Your task to perform on an android device: Clear the cart on newegg.com. Search for alienware area 51 on newegg.com, select the first entry, and add it to the cart. Image 0: 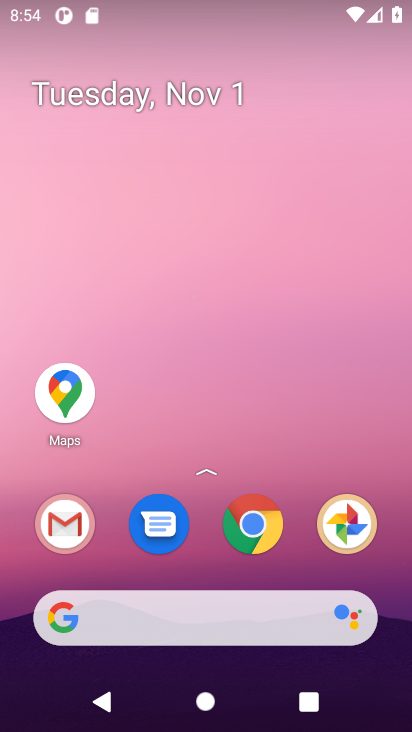
Step 0: press home button
Your task to perform on an android device: Clear the cart on newegg.com. Search for alienware area 51 on newegg.com, select the first entry, and add it to the cart. Image 1: 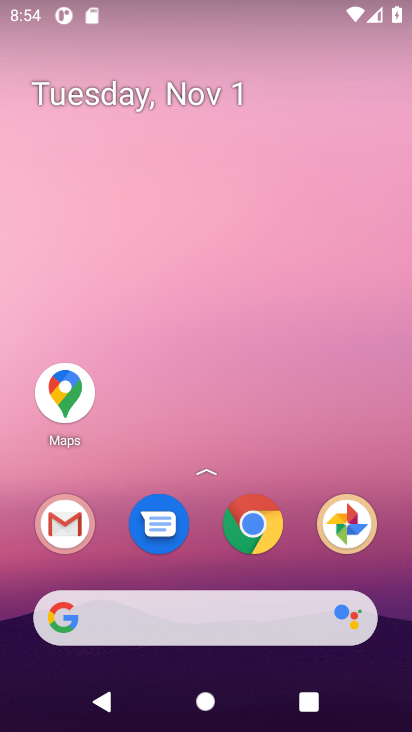
Step 1: click (91, 611)
Your task to perform on an android device: Clear the cart on newegg.com. Search for alienware area 51 on newegg.com, select the first entry, and add it to the cart. Image 2: 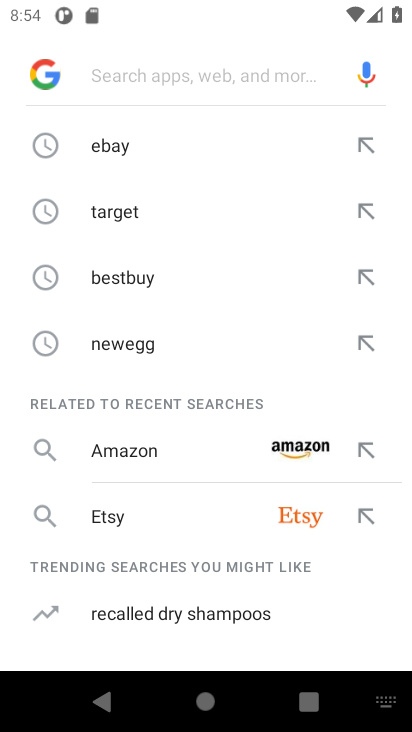
Step 2: type "newegg.com"
Your task to perform on an android device: Clear the cart on newegg.com. Search for alienware area 51 on newegg.com, select the first entry, and add it to the cart. Image 3: 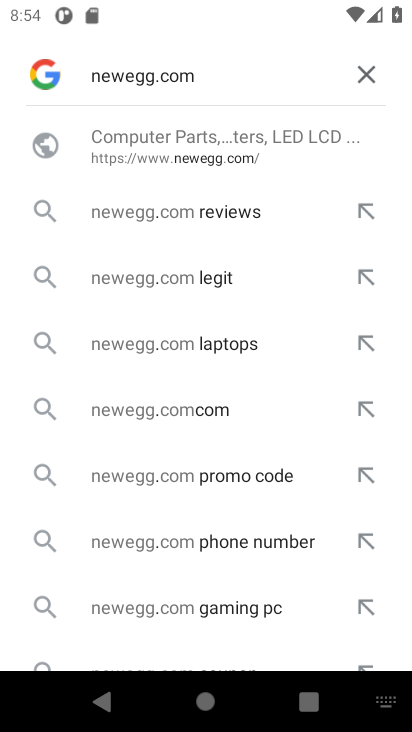
Step 3: press enter
Your task to perform on an android device: Clear the cart on newegg.com. Search for alienware area 51 on newegg.com, select the first entry, and add it to the cart. Image 4: 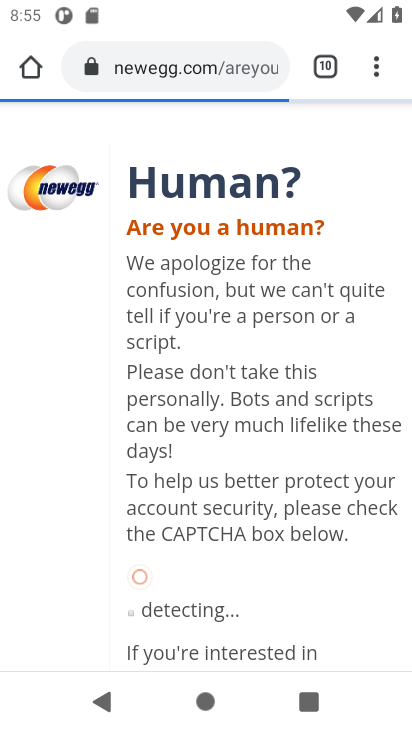
Step 4: drag from (338, 519) to (333, 202)
Your task to perform on an android device: Clear the cart on newegg.com. Search for alienware area 51 on newegg.com, select the first entry, and add it to the cart. Image 5: 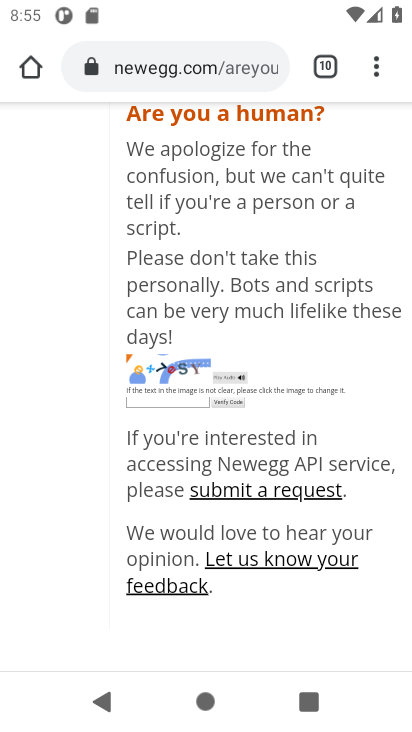
Step 5: click (163, 394)
Your task to perform on an android device: Clear the cart on newegg.com. Search for alienware area 51 on newegg.com, select the first entry, and add it to the cart. Image 6: 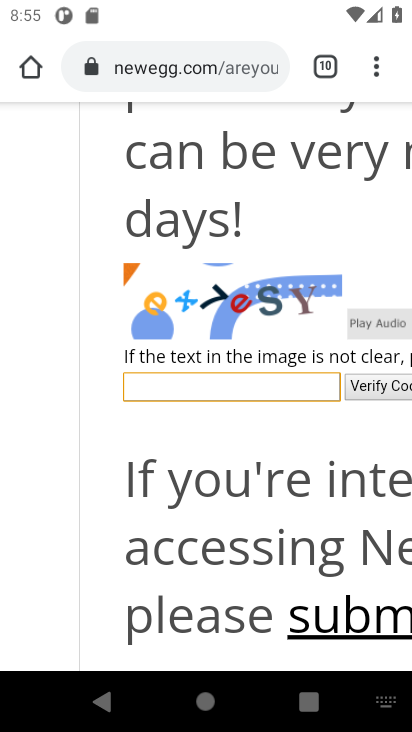
Step 6: type "ex7eSY"
Your task to perform on an android device: Clear the cart on newegg.com. Search for alienware area 51 on newegg.com, select the first entry, and add it to the cart. Image 7: 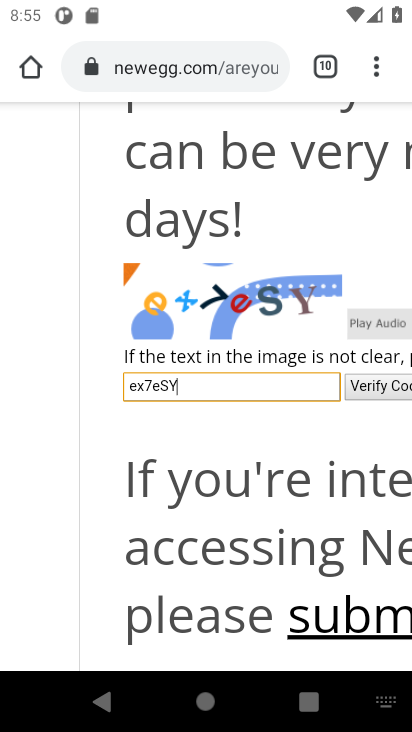
Step 7: press enter
Your task to perform on an android device: Clear the cart on newegg.com. Search for alienware area 51 on newegg.com, select the first entry, and add it to the cart. Image 8: 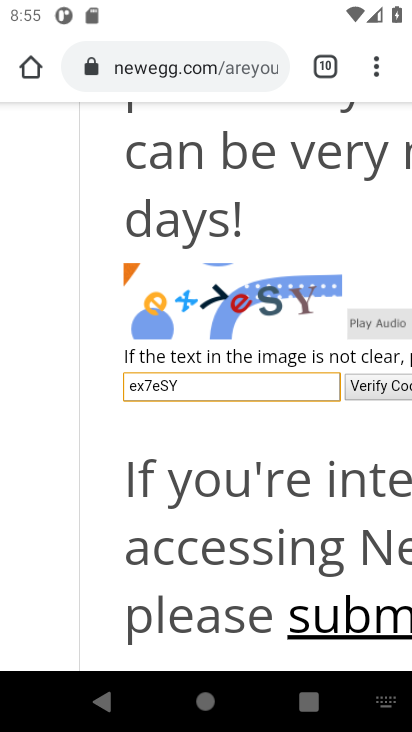
Step 8: click (376, 389)
Your task to perform on an android device: Clear the cart on newegg.com. Search for alienware area 51 on newegg.com, select the first entry, and add it to the cart. Image 9: 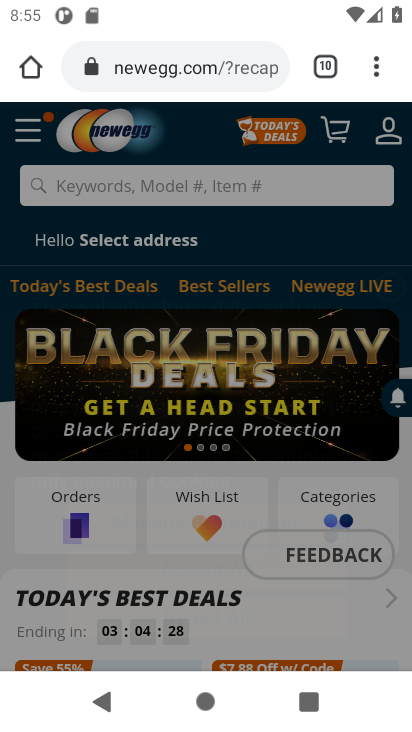
Step 9: click (336, 126)
Your task to perform on an android device: Clear the cart on newegg.com. Search for alienware area 51 on newegg.com, select the first entry, and add it to the cart. Image 10: 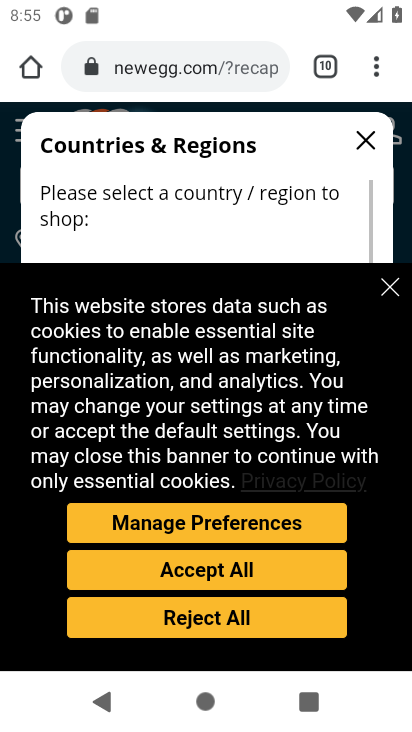
Step 10: click (287, 570)
Your task to perform on an android device: Clear the cart on newegg.com. Search for alienware area 51 on newegg.com, select the first entry, and add it to the cart. Image 11: 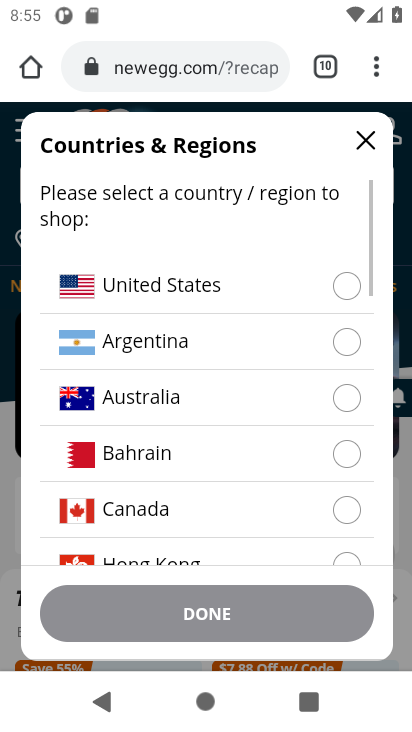
Step 11: click (363, 138)
Your task to perform on an android device: Clear the cart on newegg.com. Search for alienware area 51 on newegg.com, select the first entry, and add it to the cart. Image 12: 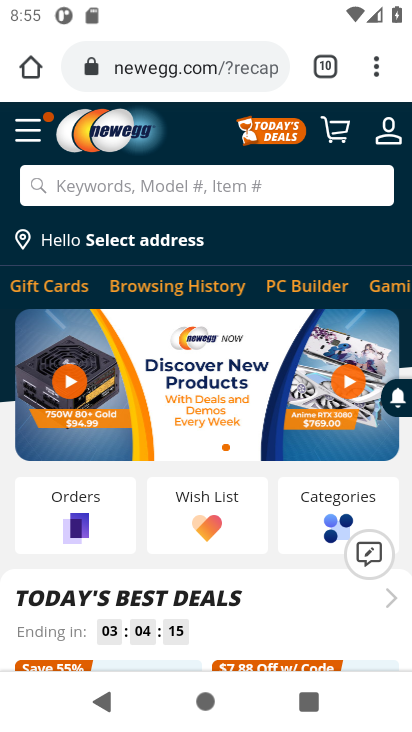
Step 12: click (333, 128)
Your task to perform on an android device: Clear the cart on newegg.com. Search for alienware area 51 on newegg.com, select the first entry, and add it to the cart. Image 13: 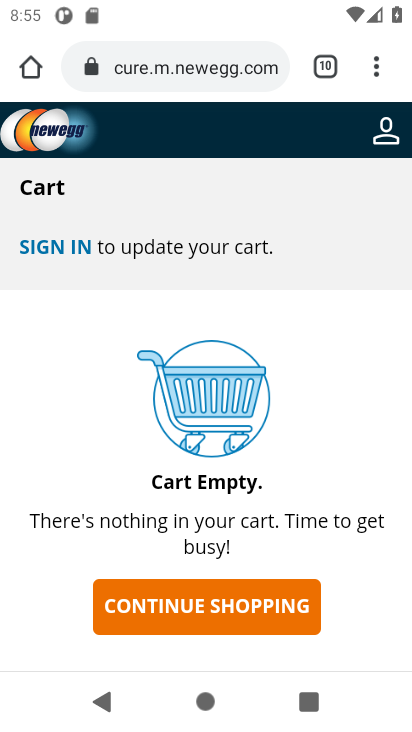
Step 13: drag from (293, 187) to (280, 545)
Your task to perform on an android device: Clear the cart on newegg.com. Search for alienware area 51 on newegg.com, select the first entry, and add it to the cart. Image 14: 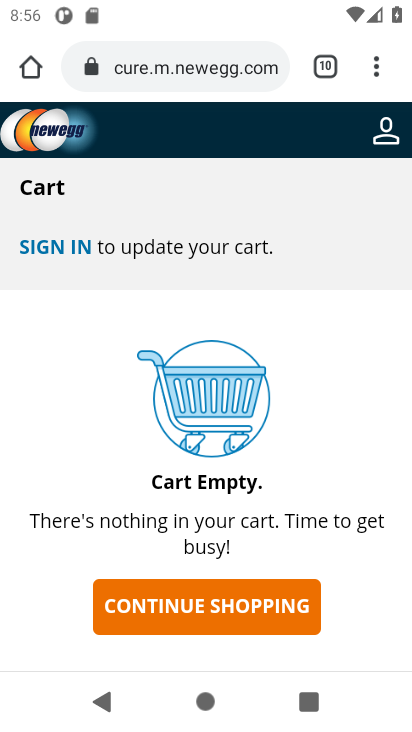
Step 14: press back button
Your task to perform on an android device: Clear the cart on newegg.com. Search for alienware area 51 on newegg.com, select the first entry, and add it to the cart. Image 15: 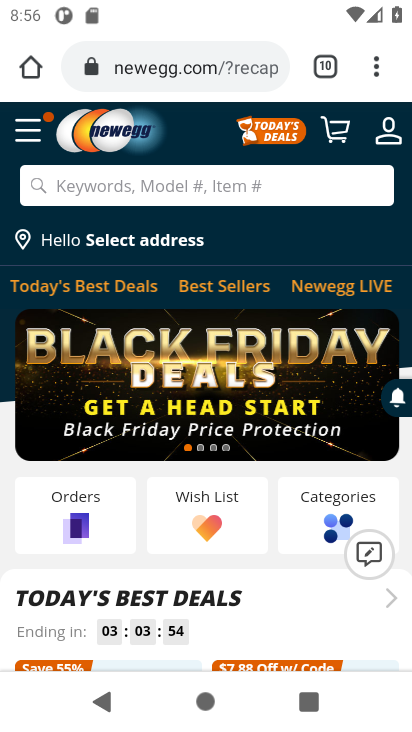
Step 15: click (173, 190)
Your task to perform on an android device: Clear the cart on newegg.com. Search for alienware area 51 on newegg.com, select the first entry, and add it to the cart. Image 16: 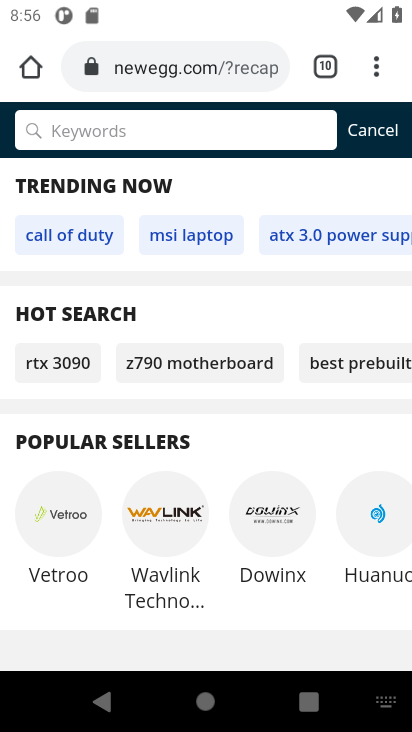
Step 16: type "alienware area 51"
Your task to perform on an android device: Clear the cart on newegg.com. Search for alienware area 51 on newegg.com, select the first entry, and add it to the cart. Image 17: 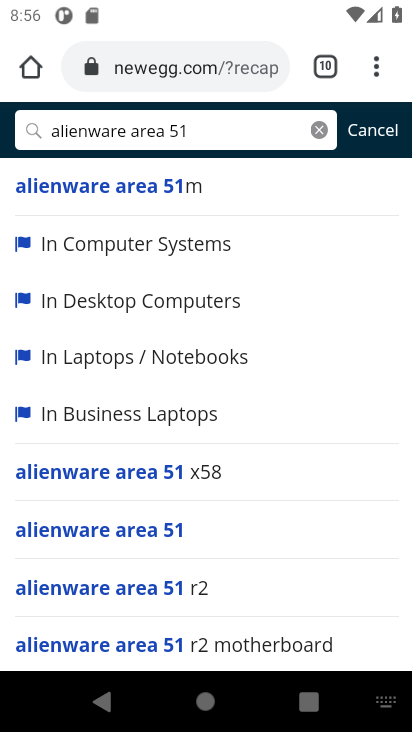
Step 17: click (129, 189)
Your task to perform on an android device: Clear the cart on newegg.com. Search for alienware area 51 on newegg.com, select the first entry, and add it to the cart. Image 18: 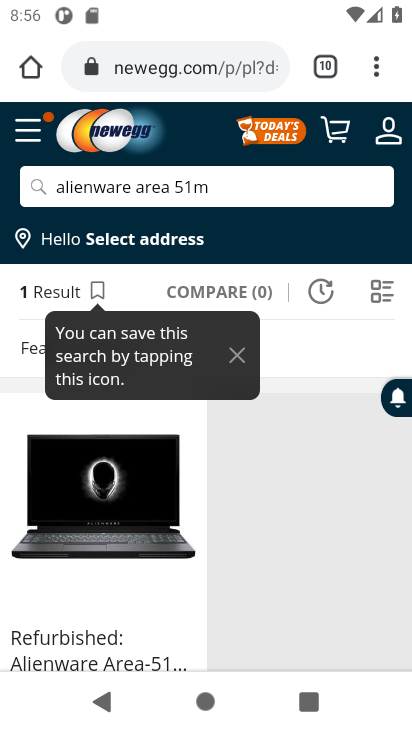
Step 18: drag from (256, 549) to (263, 291)
Your task to perform on an android device: Clear the cart on newegg.com. Search for alienware area 51 on newegg.com, select the first entry, and add it to the cart. Image 19: 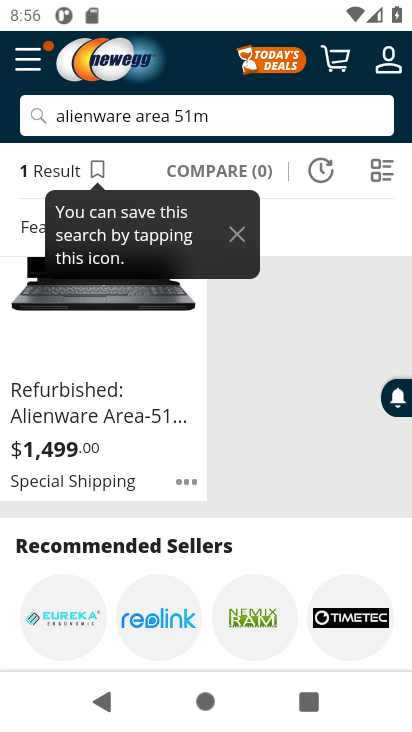
Step 19: click (83, 413)
Your task to perform on an android device: Clear the cart on newegg.com. Search for alienware area 51 on newegg.com, select the first entry, and add it to the cart. Image 20: 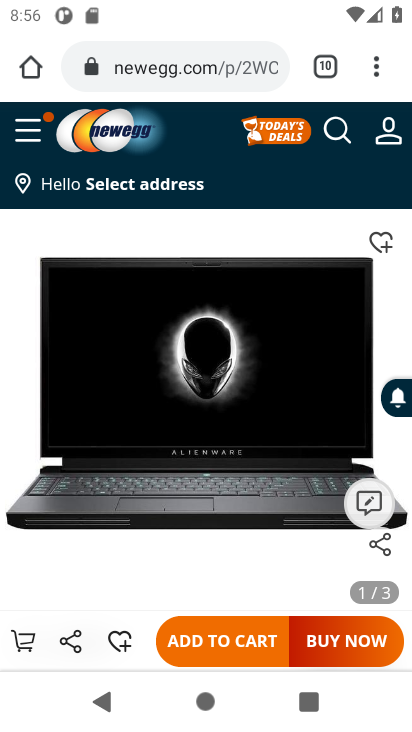
Step 20: click (207, 637)
Your task to perform on an android device: Clear the cart on newegg.com. Search for alienware area 51 on newegg.com, select the first entry, and add it to the cart. Image 21: 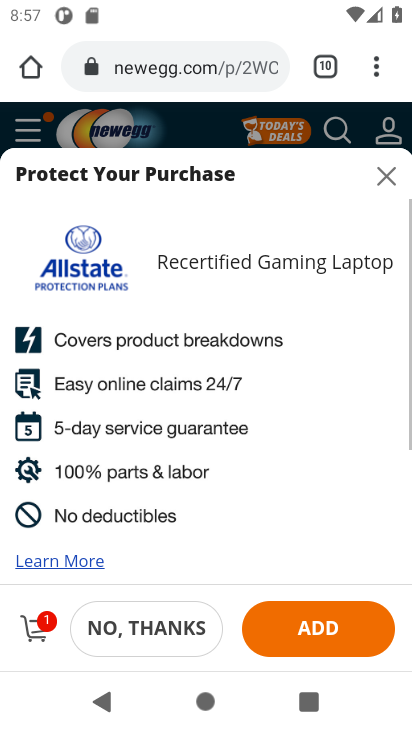
Step 21: task complete